Your task to perform on an android device: Open ESPN.com Image 0: 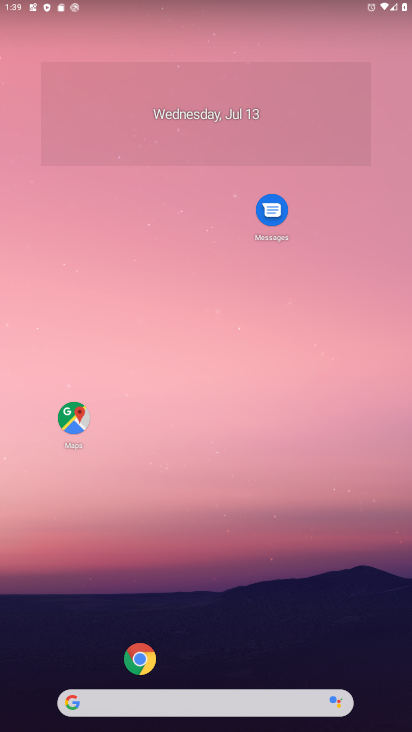
Step 0: click (138, 698)
Your task to perform on an android device: Open ESPN.com Image 1: 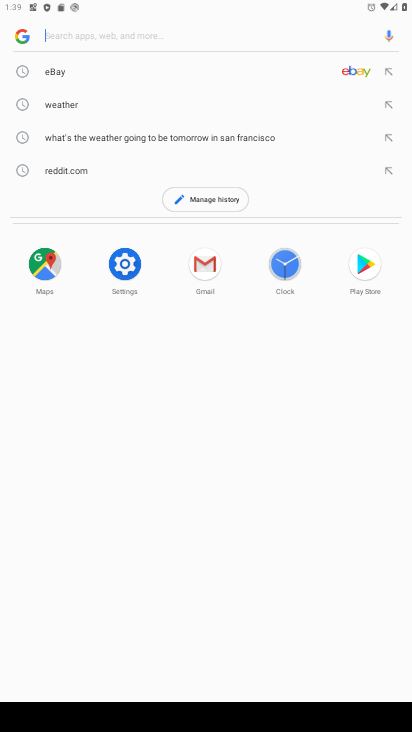
Step 1: type "ESPN.com"
Your task to perform on an android device: Open ESPN.com Image 2: 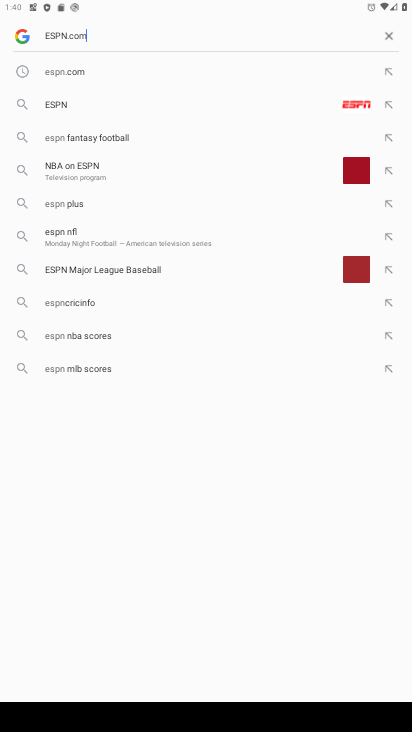
Step 2: type ""
Your task to perform on an android device: Open ESPN.com Image 3: 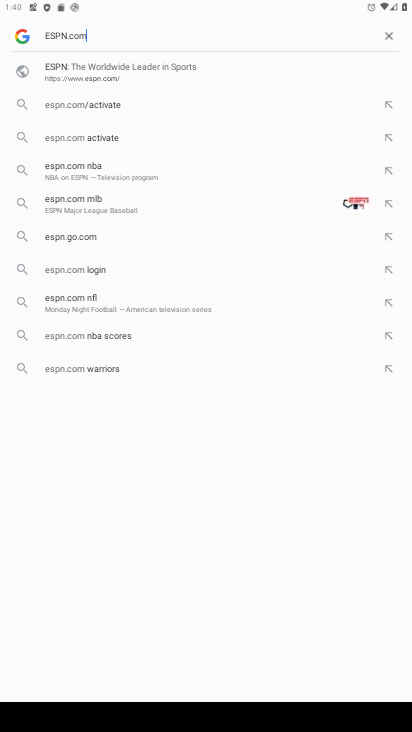
Step 3: click (151, 60)
Your task to perform on an android device: Open ESPN.com Image 4: 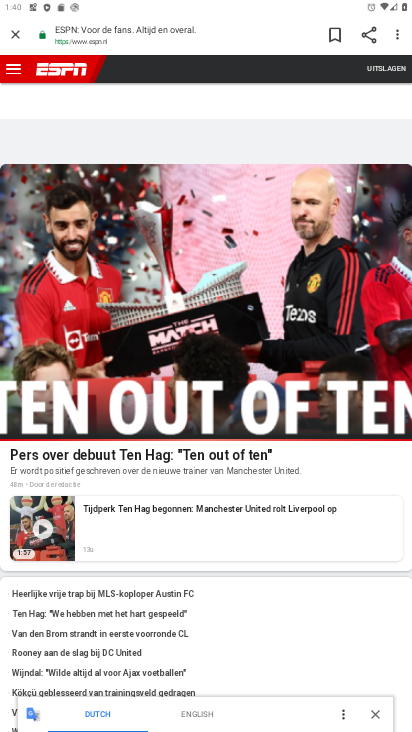
Step 4: task complete